Your task to perform on an android device: Open Google Chrome and click the shortcut for Amazon.com Image 0: 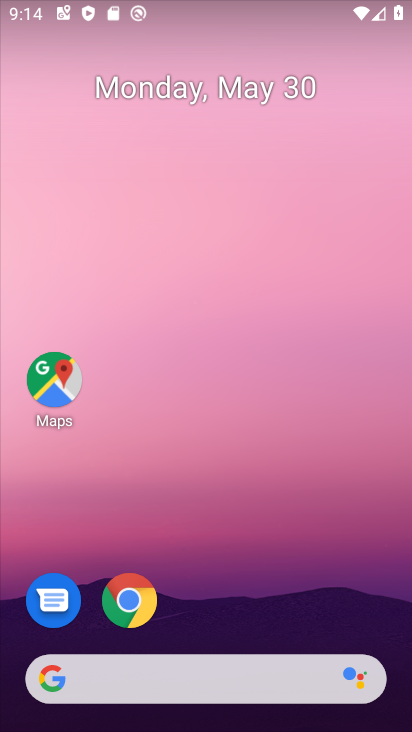
Step 0: click (135, 600)
Your task to perform on an android device: Open Google Chrome and click the shortcut for Amazon.com Image 1: 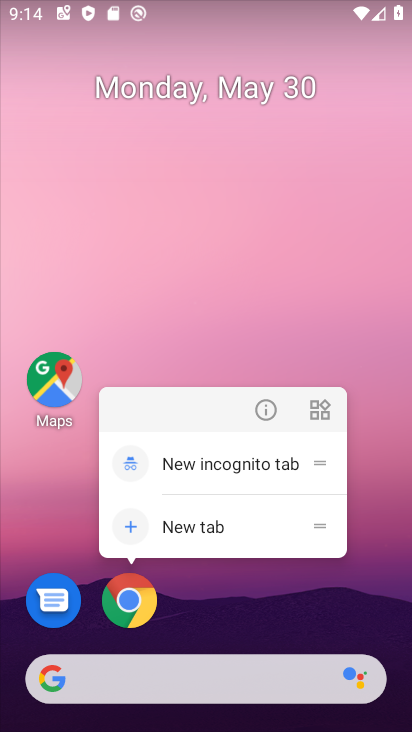
Step 1: click (136, 612)
Your task to perform on an android device: Open Google Chrome and click the shortcut for Amazon.com Image 2: 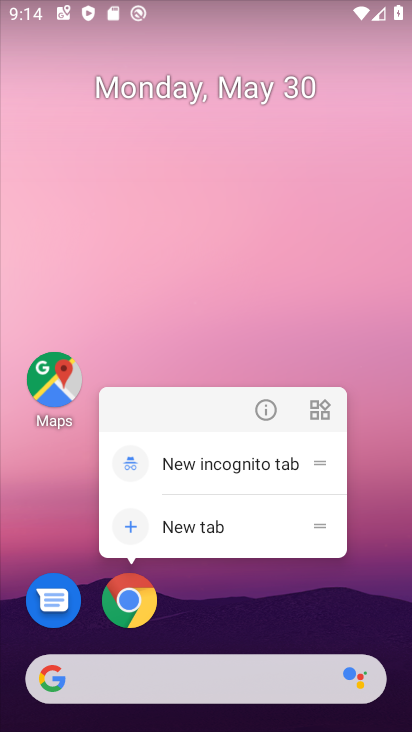
Step 2: click (211, 615)
Your task to perform on an android device: Open Google Chrome and click the shortcut for Amazon.com Image 3: 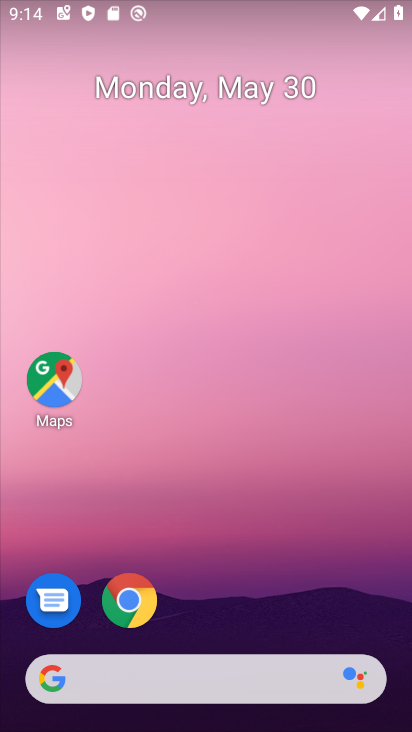
Step 3: drag from (243, 645) to (269, 16)
Your task to perform on an android device: Open Google Chrome and click the shortcut for Amazon.com Image 4: 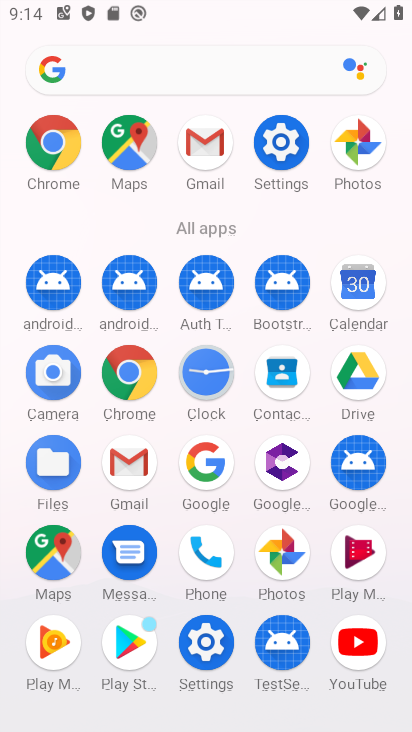
Step 4: click (48, 140)
Your task to perform on an android device: Open Google Chrome and click the shortcut for Amazon.com Image 5: 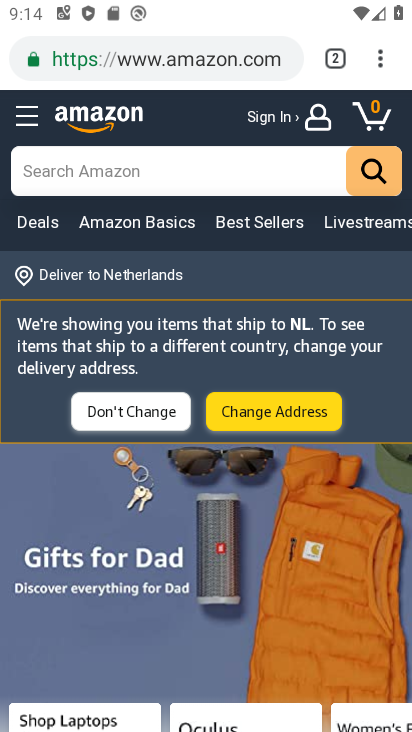
Step 5: click (335, 61)
Your task to perform on an android device: Open Google Chrome and click the shortcut for Amazon.com Image 6: 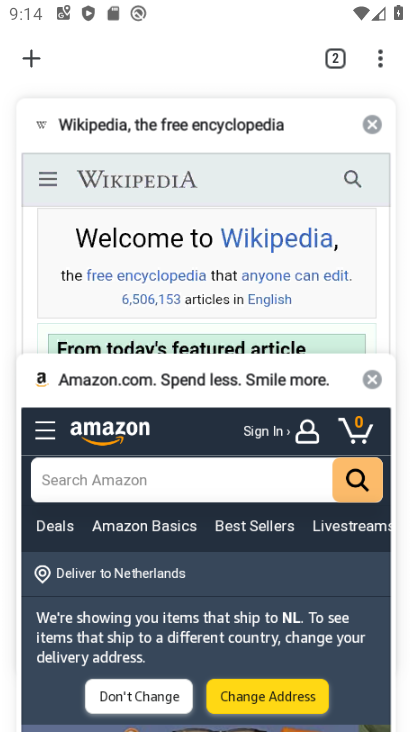
Step 6: click (35, 58)
Your task to perform on an android device: Open Google Chrome and click the shortcut for Amazon.com Image 7: 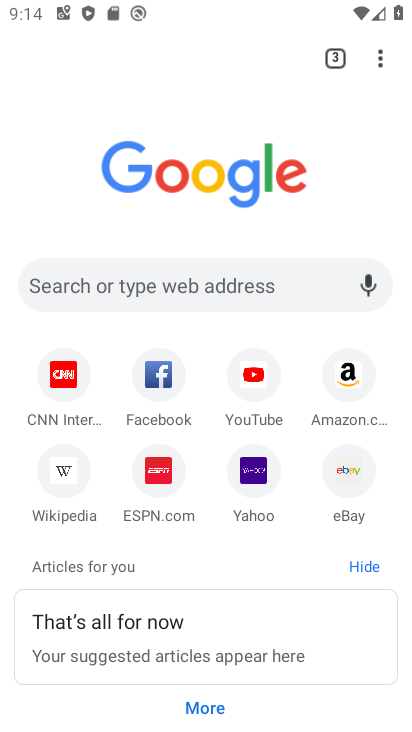
Step 7: click (341, 371)
Your task to perform on an android device: Open Google Chrome and click the shortcut for Amazon.com Image 8: 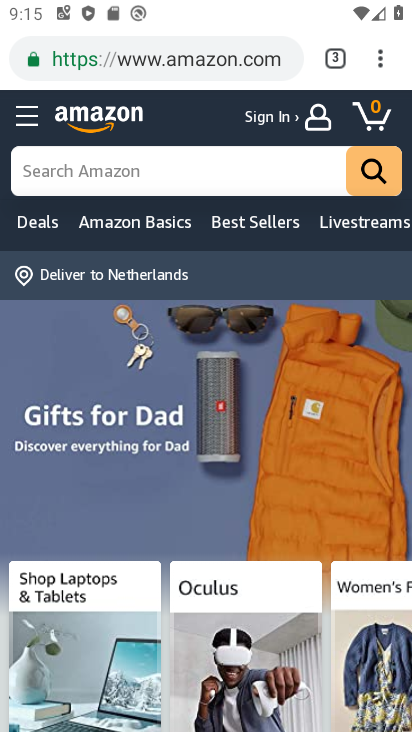
Step 8: task complete